Your task to perform on an android device: Go to notification settings Image 0: 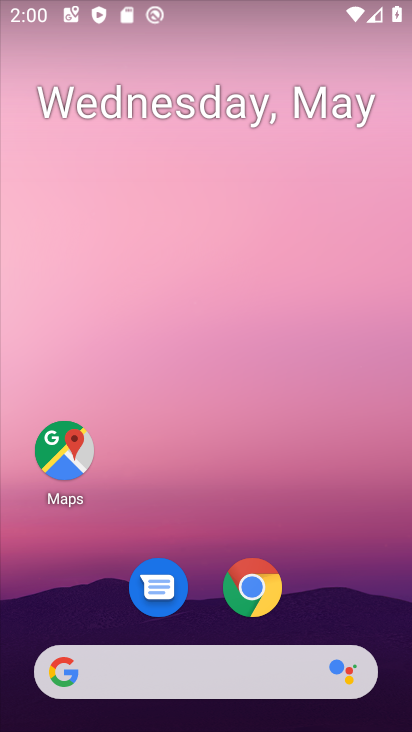
Step 0: drag from (353, 577) to (345, 2)
Your task to perform on an android device: Go to notification settings Image 1: 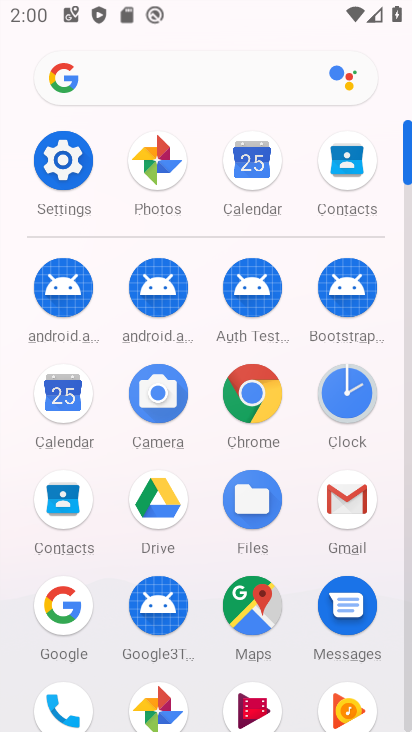
Step 1: drag from (198, 590) to (238, 107)
Your task to perform on an android device: Go to notification settings Image 2: 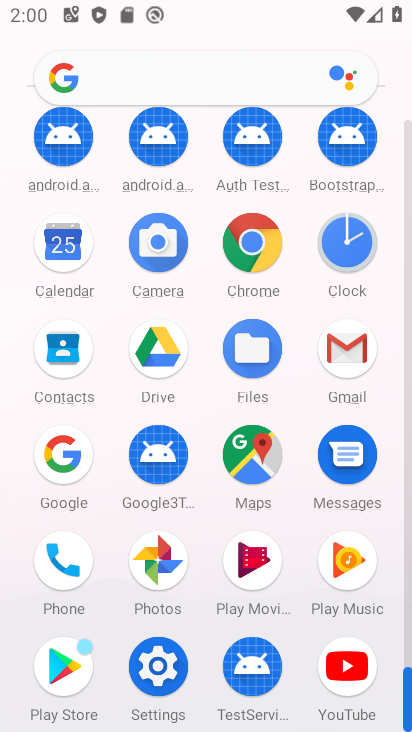
Step 2: click (161, 684)
Your task to perform on an android device: Go to notification settings Image 3: 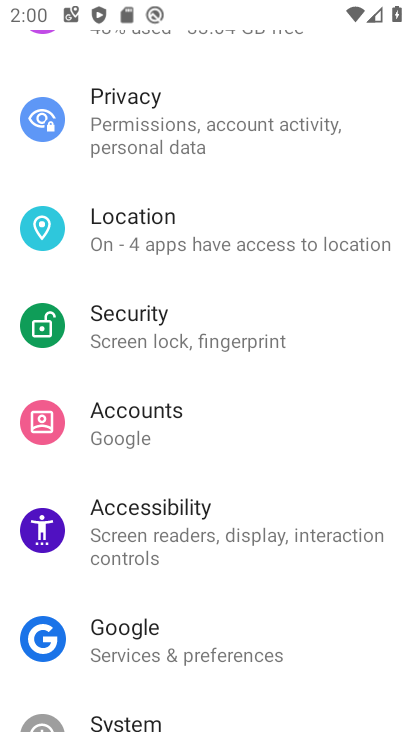
Step 3: drag from (206, 189) to (215, 598)
Your task to perform on an android device: Go to notification settings Image 4: 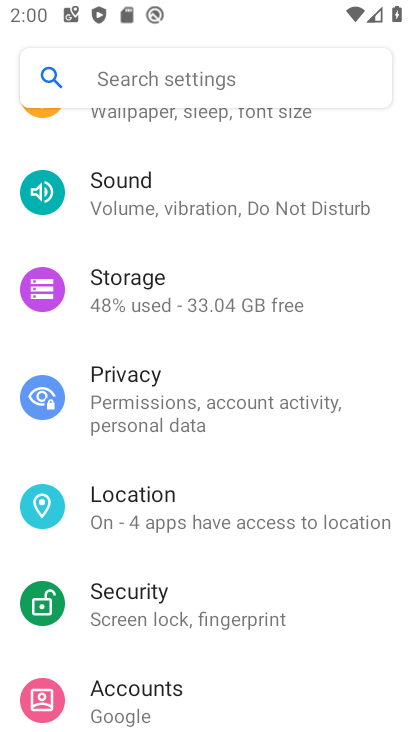
Step 4: drag from (183, 197) to (209, 521)
Your task to perform on an android device: Go to notification settings Image 5: 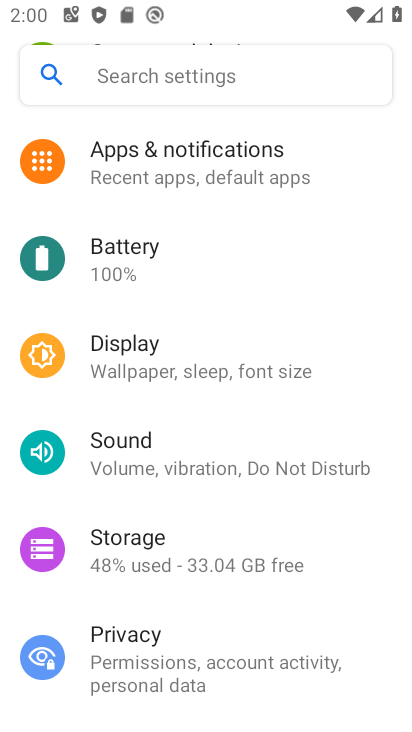
Step 5: click (164, 159)
Your task to perform on an android device: Go to notification settings Image 6: 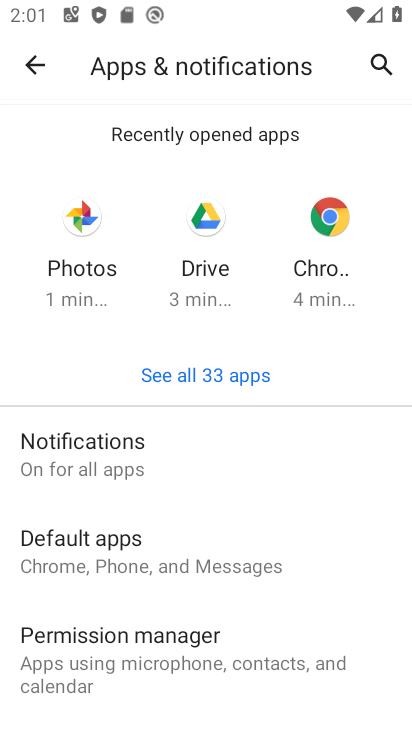
Step 6: click (145, 429)
Your task to perform on an android device: Go to notification settings Image 7: 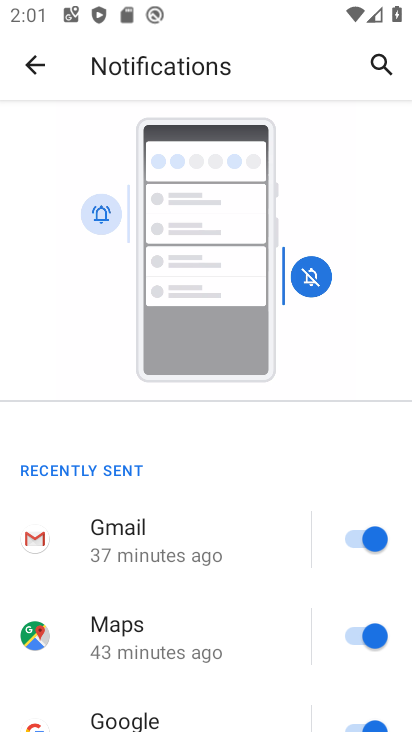
Step 7: task complete